Your task to perform on an android device: turn off improve location accuracy Image 0: 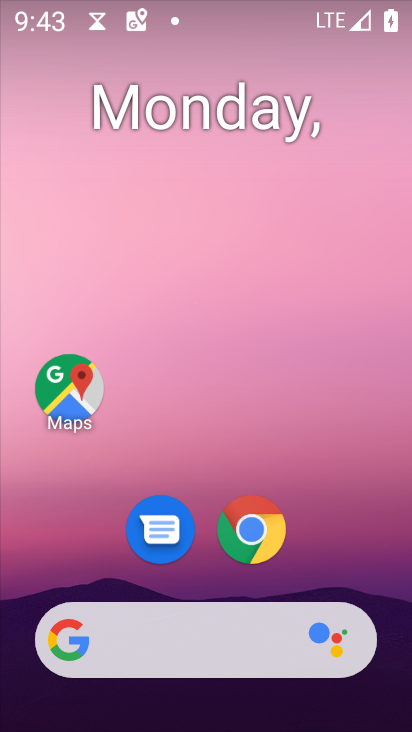
Step 0: drag from (267, 628) to (236, 253)
Your task to perform on an android device: turn off improve location accuracy Image 1: 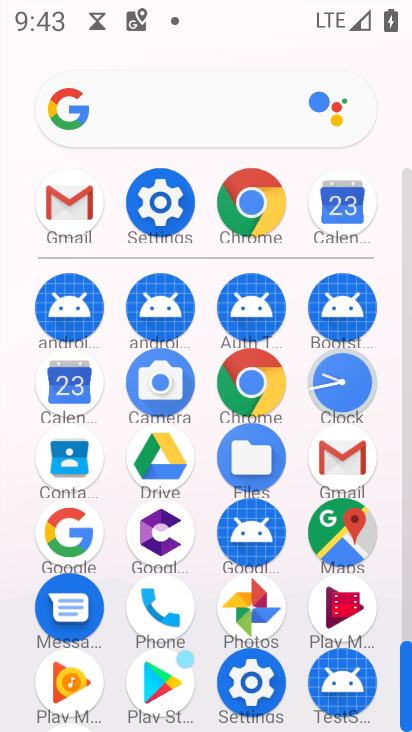
Step 1: click (160, 191)
Your task to perform on an android device: turn off improve location accuracy Image 2: 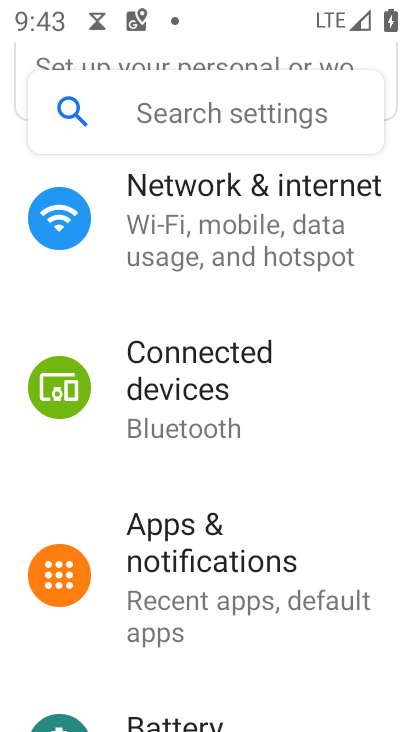
Step 2: drag from (215, 470) to (214, 143)
Your task to perform on an android device: turn off improve location accuracy Image 3: 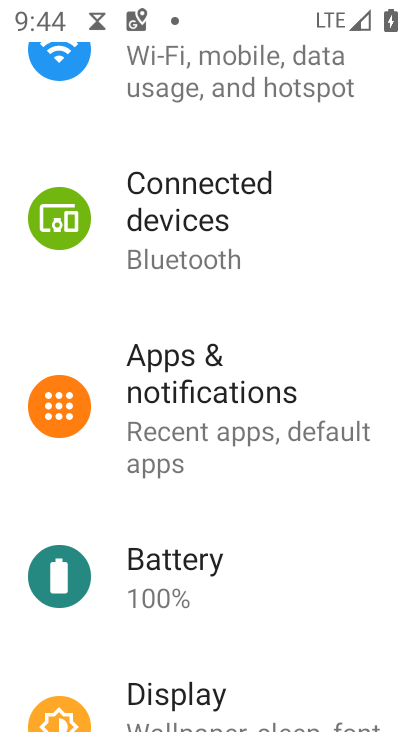
Step 3: drag from (272, 530) to (261, 153)
Your task to perform on an android device: turn off improve location accuracy Image 4: 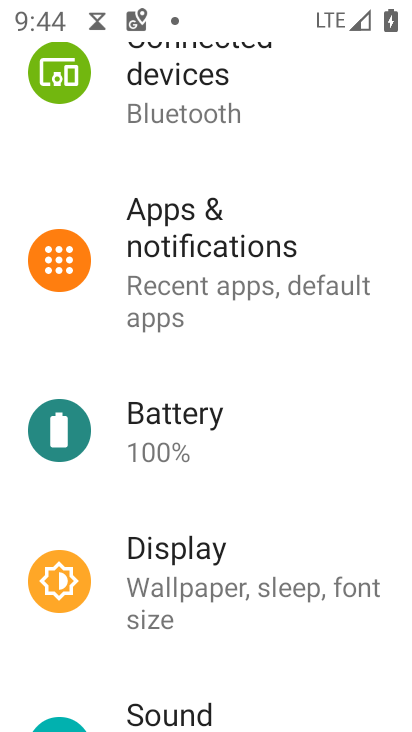
Step 4: drag from (280, 595) to (244, 134)
Your task to perform on an android device: turn off improve location accuracy Image 5: 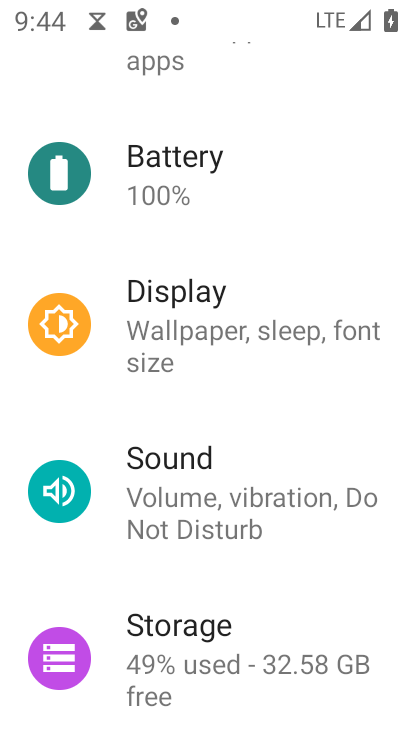
Step 5: click (196, 112)
Your task to perform on an android device: turn off improve location accuracy Image 6: 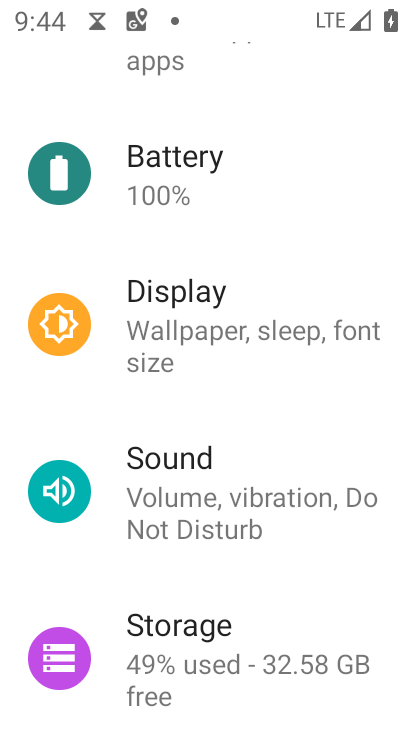
Step 6: drag from (281, 560) to (285, 51)
Your task to perform on an android device: turn off improve location accuracy Image 7: 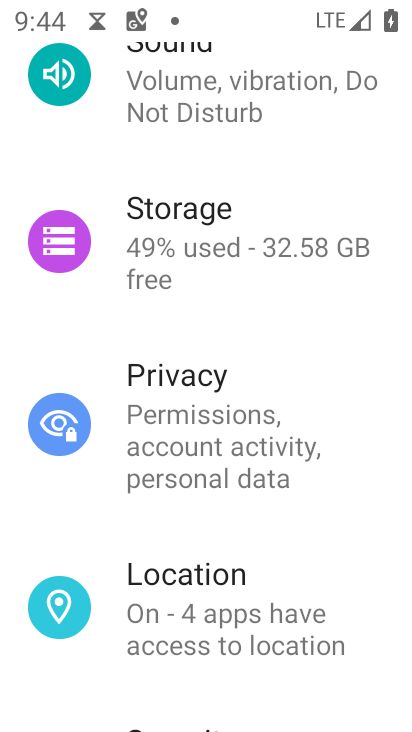
Step 7: click (201, 620)
Your task to perform on an android device: turn off improve location accuracy Image 8: 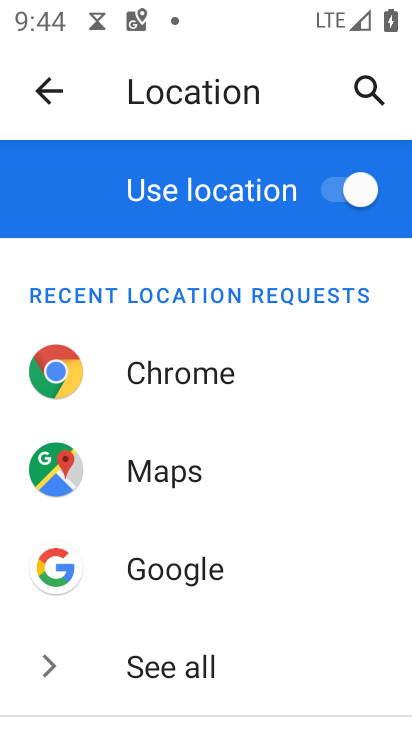
Step 8: click (47, 98)
Your task to perform on an android device: turn off improve location accuracy Image 9: 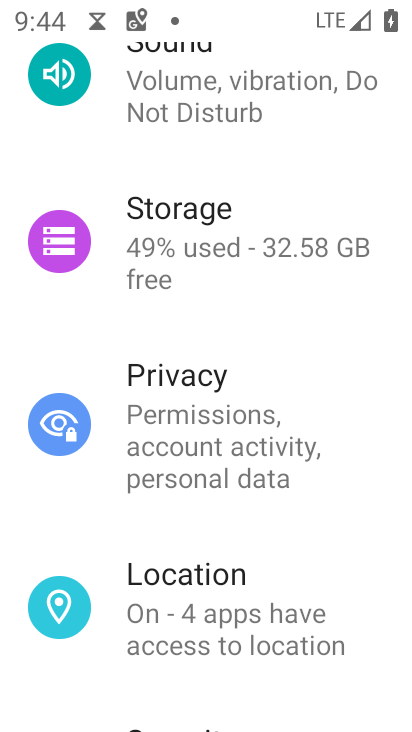
Step 9: click (37, 93)
Your task to perform on an android device: turn off improve location accuracy Image 10: 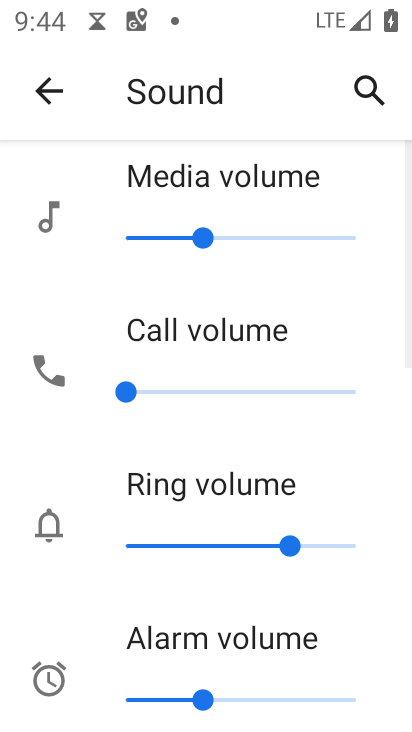
Step 10: click (43, 112)
Your task to perform on an android device: turn off improve location accuracy Image 11: 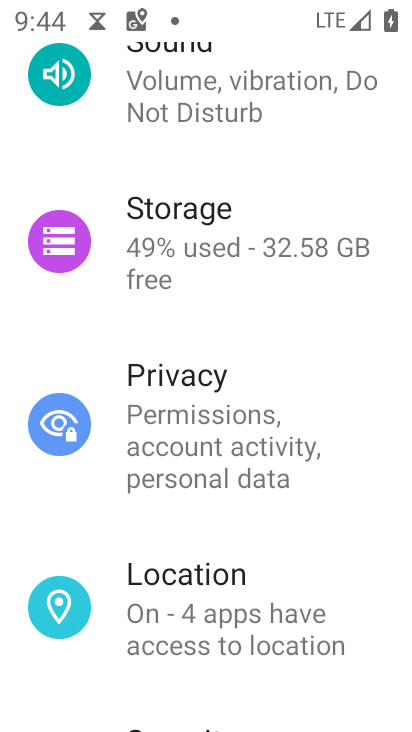
Step 11: click (214, 612)
Your task to perform on an android device: turn off improve location accuracy Image 12: 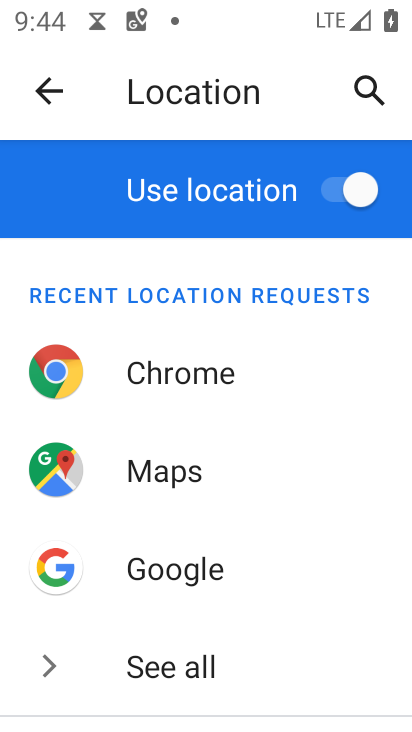
Step 12: drag from (197, 540) to (203, 122)
Your task to perform on an android device: turn off improve location accuracy Image 13: 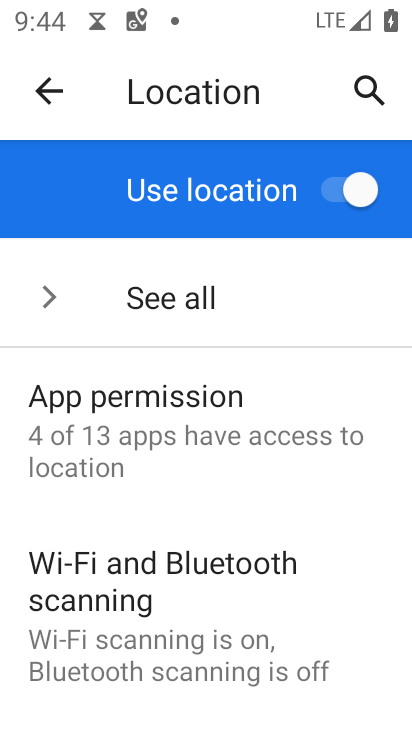
Step 13: drag from (187, 623) to (161, 240)
Your task to perform on an android device: turn off improve location accuracy Image 14: 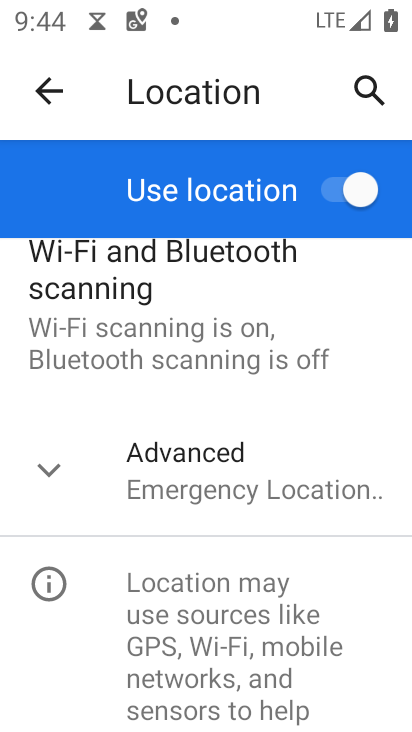
Step 14: click (233, 481)
Your task to perform on an android device: turn off improve location accuracy Image 15: 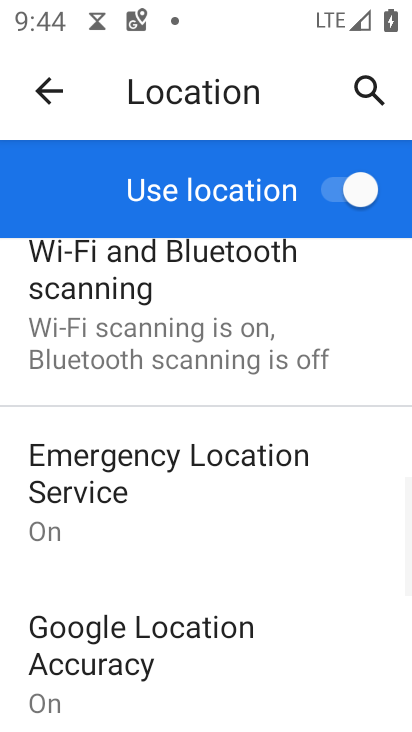
Step 15: drag from (205, 639) to (173, 406)
Your task to perform on an android device: turn off improve location accuracy Image 16: 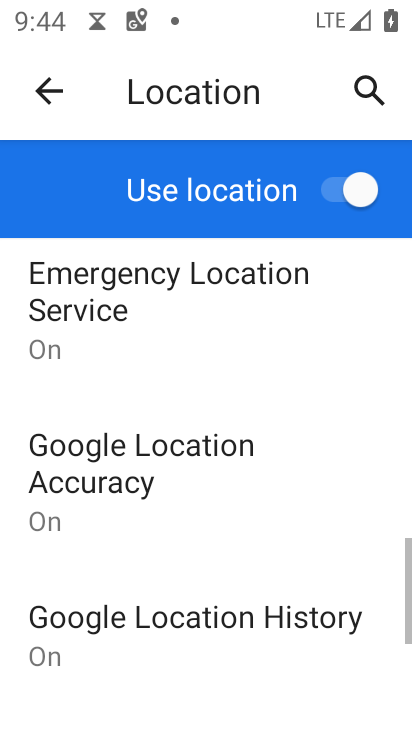
Step 16: drag from (211, 534) to (206, 289)
Your task to perform on an android device: turn off improve location accuracy Image 17: 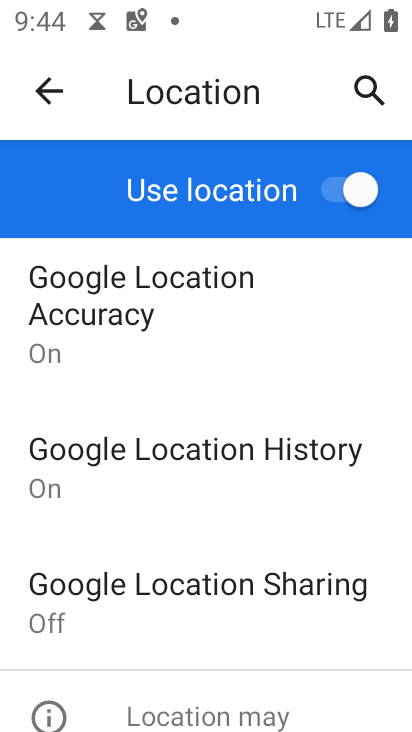
Step 17: click (61, 323)
Your task to perform on an android device: turn off improve location accuracy Image 18: 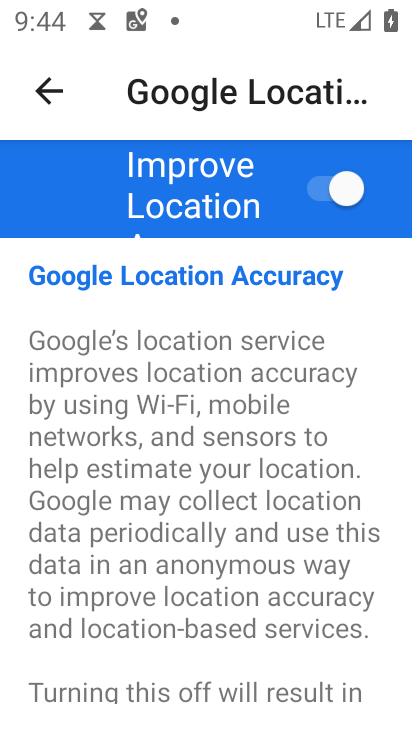
Step 18: click (341, 182)
Your task to perform on an android device: turn off improve location accuracy Image 19: 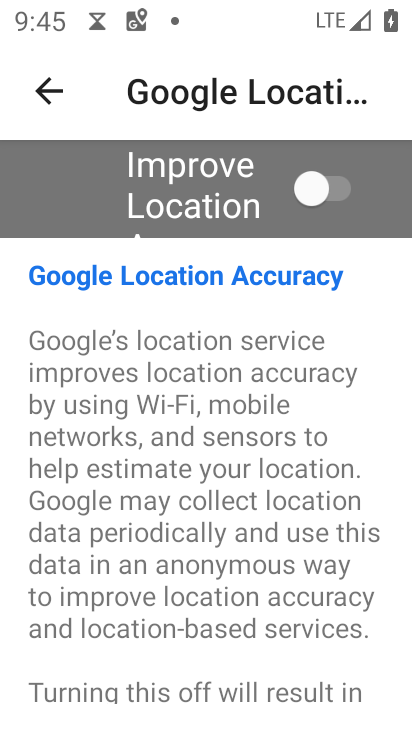
Step 19: task complete